Your task to perform on an android device: Show me productivity apps on the Play Store Image 0: 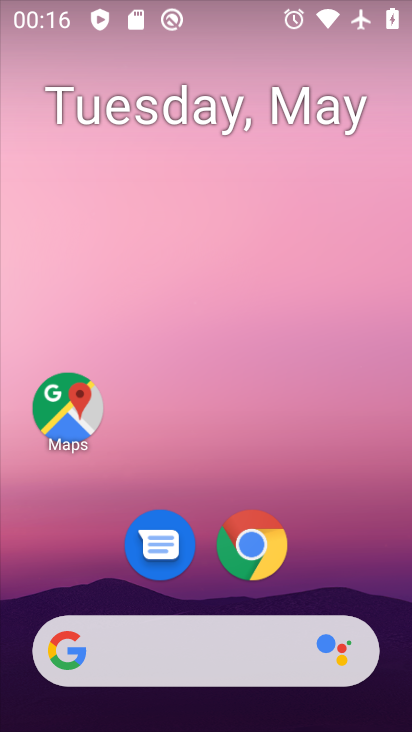
Step 0: drag from (337, 585) to (386, 43)
Your task to perform on an android device: Show me productivity apps on the Play Store Image 1: 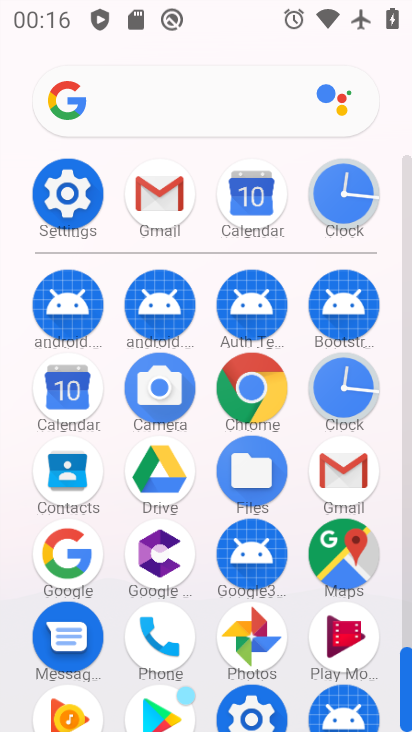
Step 1: drag from (182, 571) to (240, 307)
Your task to perform on an android device: Show me productivity apps on the Play Store Image 2: 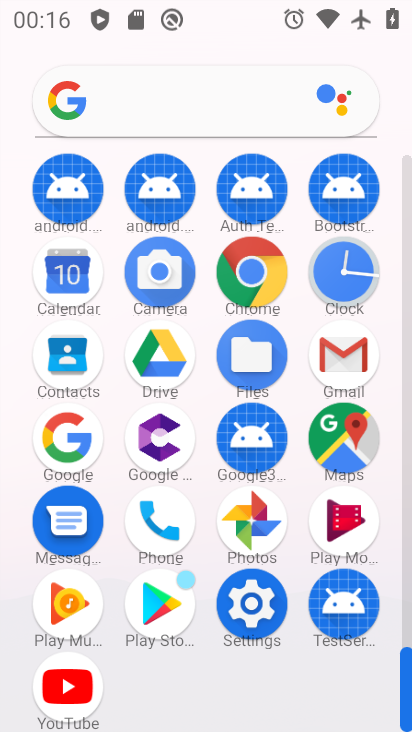
Step 2: click (150, 621)
Your task to perform on an android device: Show me productivity apps on the Play Store Image 3: 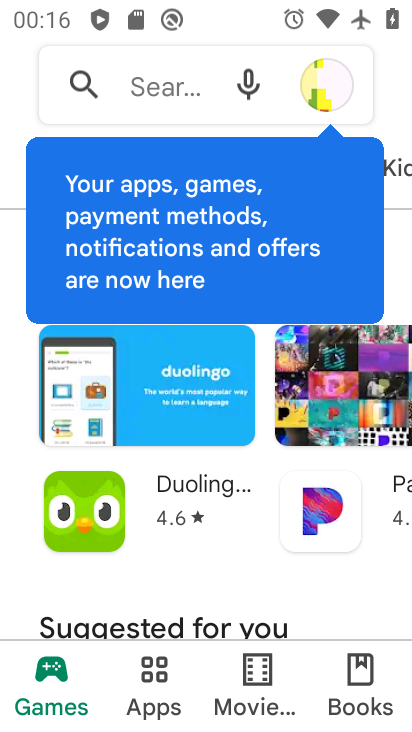
Step 3: click (160, 659)
Your task to perform on an android device: Show me productivity apps on the Play Store Image 4: 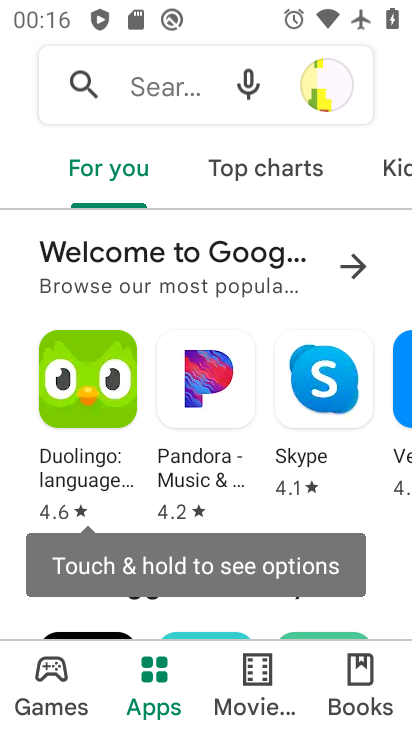
Step 4: drag from (406, 175) to (6, 225)
Your task to perform on an android device: Show me productivity apps on the Play Store Image 5: 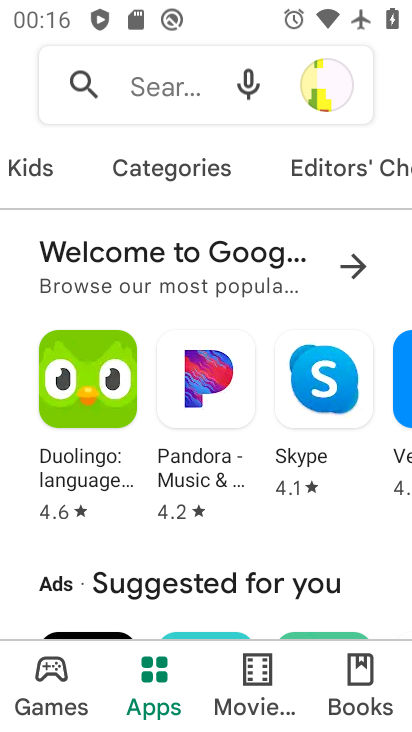
Step 5: click (158, 167)
Your task to perform on an android device: Show me productivity apps on the Play Store Image 6: 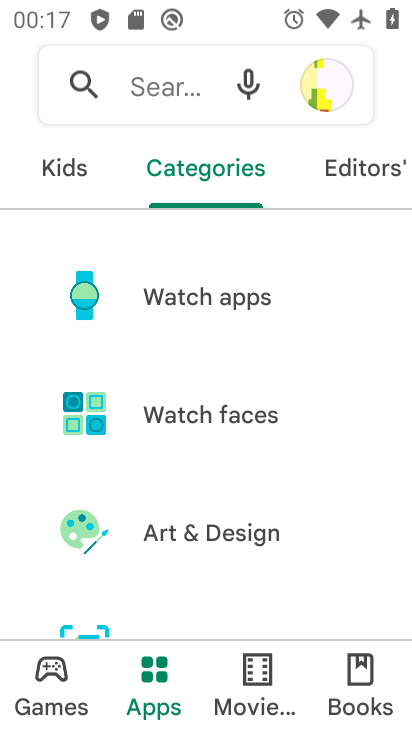
Step 6: drag from (162, 570) to (212, 391)
Your task to perform on an android device: Show me productivity apps on the Play Store Image 7: 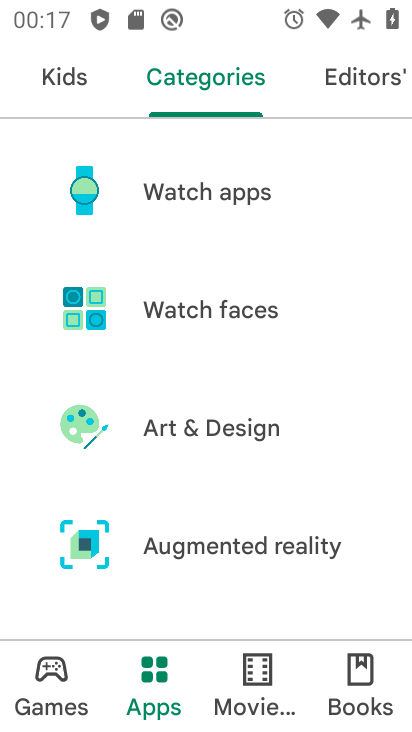
Step 7: drag from (197, 552) to (239, 370)
Your task to perform on an android device: Show me productivity apps on the Play Store Image 8: 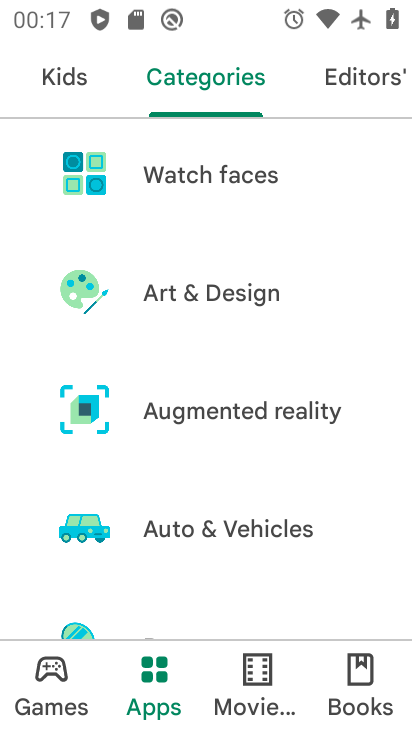
Step 8: drag from (200, 543) to (209, 404)
Your task to perform on an android device: Show me productivity apps on the Play Store Image 9: 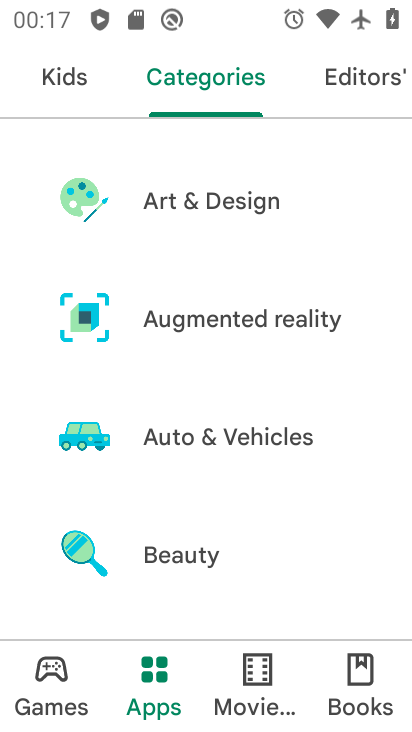
Step 9: drag from (157, 593) to (203, 452)
Your task to perform on an android device: Show me productivity apps on the Play Store Image 10: 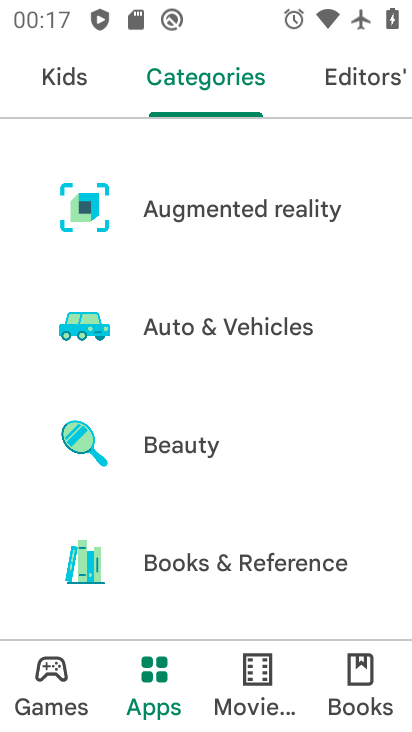
Step 10: drag from (169, 553) to (213, 419)
Your task to perform on an android device: Show me productivity apps on the Play Store Image 11: 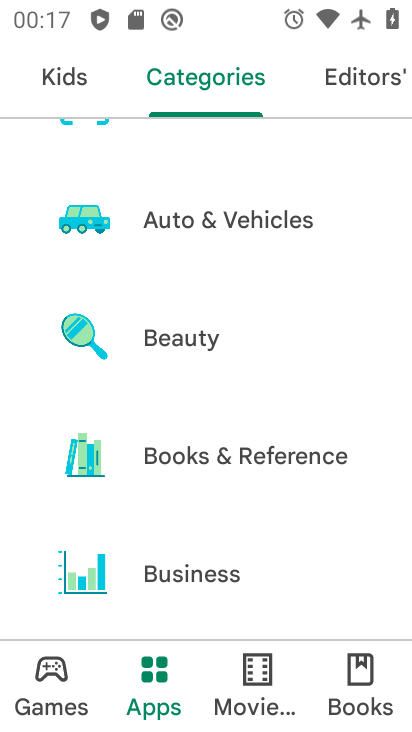
Step 11: drag from (214, 547) to (251, 391)
Your task to perform on an android device: Show me productivity apps on the Play Store Image 12: 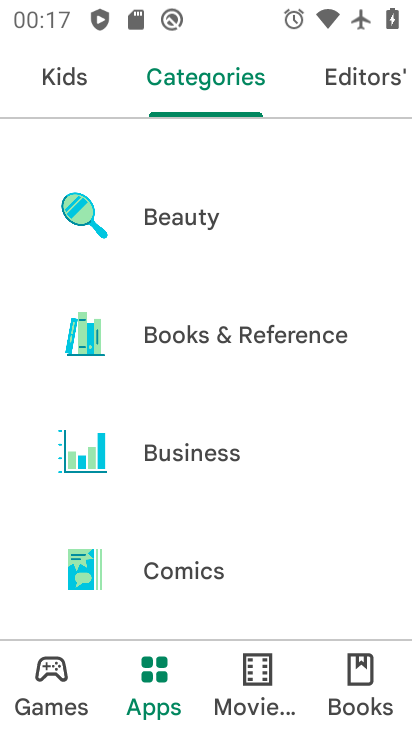
Step 12: drag from (293, 523) to (305, 430)
Your task to perform on an android device: Show me productivity apps on the Play Store Image 13: 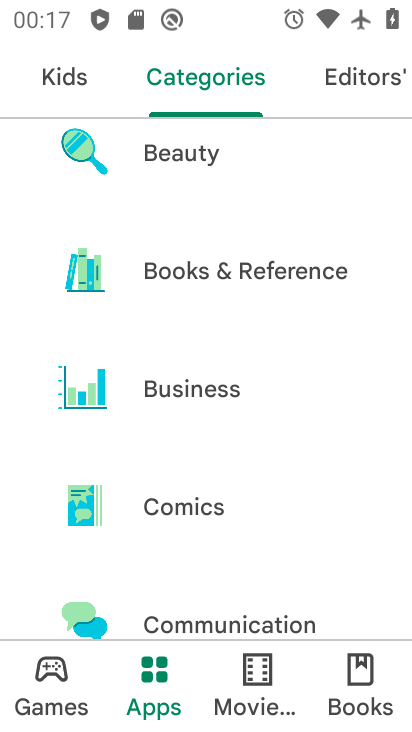
Step 13: drag from (272, 533) to (271, 326)
Your task to perform on an android device: Show me productivity apps on the Play Store Image 14: 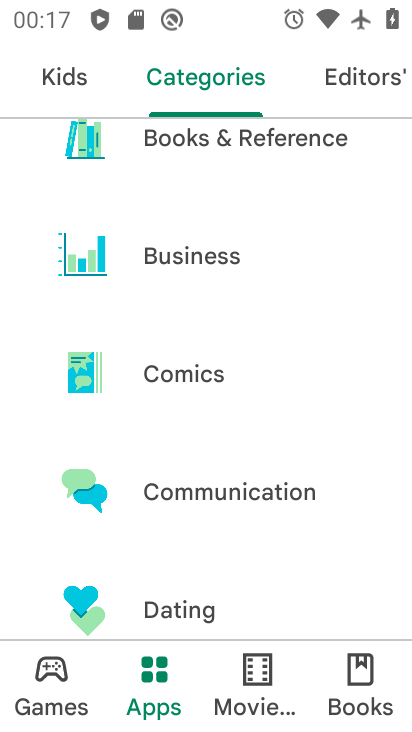
Step 14: drag from (243, 484) to (248, 359)
Your task to perform on an android device: Show me productivity apps on the Play Store Image 15: 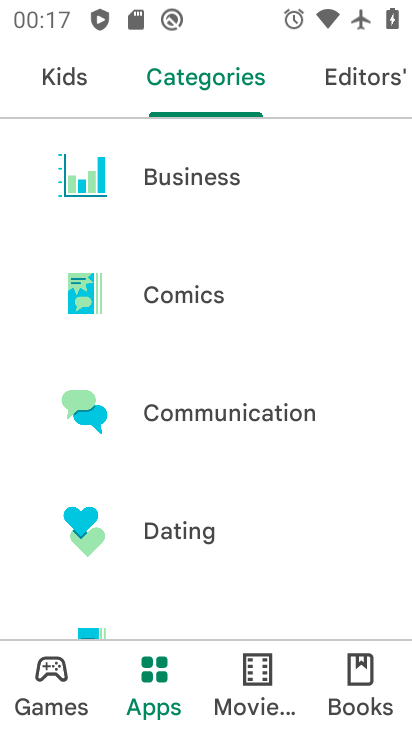
Step 15: drag from (209, 490) to (241, 299)
Your task to perform on an android device: Show me productivity apps on the Play Store Image 16: 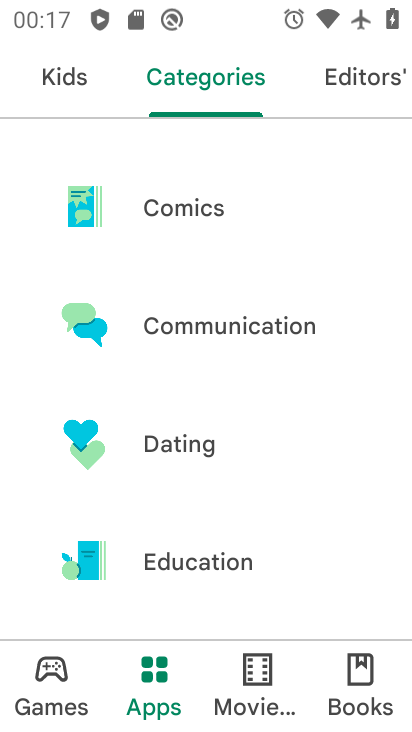
Step 16: drag from (180, 516) to (228, 350)
Your task to perform on an android device: Show me productivity apps on the Play Store Image 17: 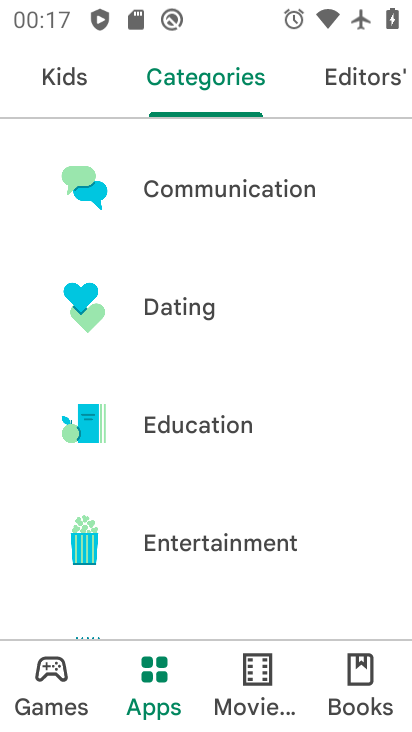
Step 17: drag from (196, 572) to (243, 360)
Your task to perform on an android device: Show me productivity apps on the Play Store Image 18: 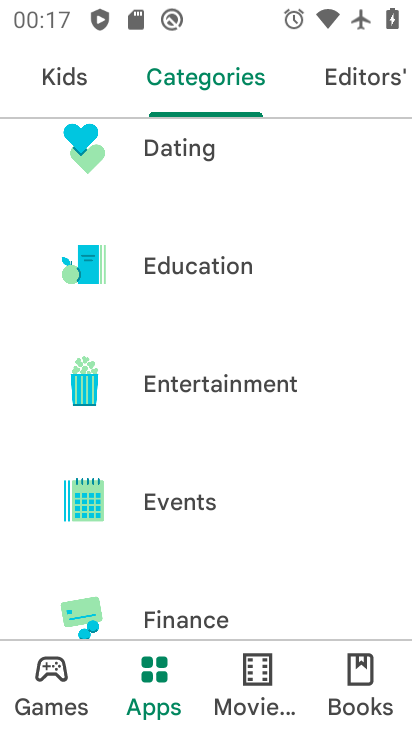
Step 18: drag from (201, 550) to (236, 376)
Your task to perform on an android device: Show me productivity apps on the Play Store Image 19: 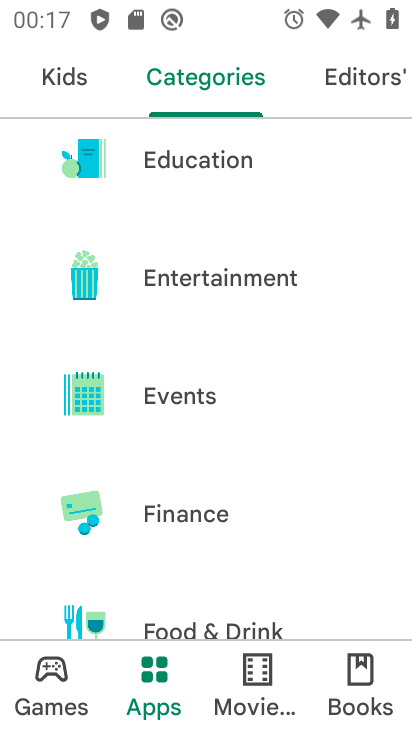
Step 19: drag from (218, 572) to (245, 470)
Your task to perform on an android device: Show me productivity apps on the Play Store Image 20: 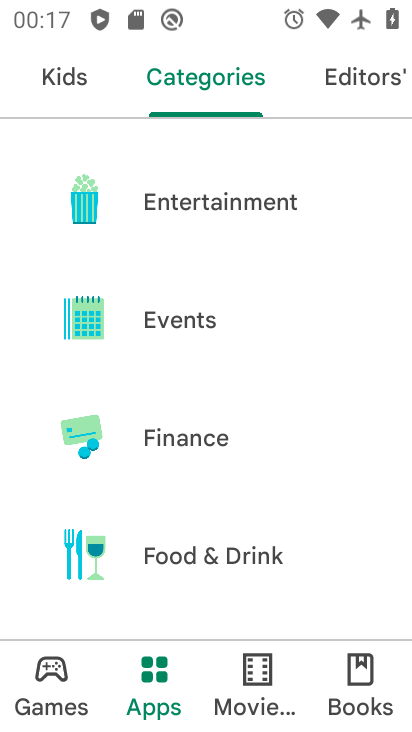
Step 20: drag from (246, 470) to (249, 322)
Your task to perform on an android device: Show me productivity apps on the Play Store Image 21: 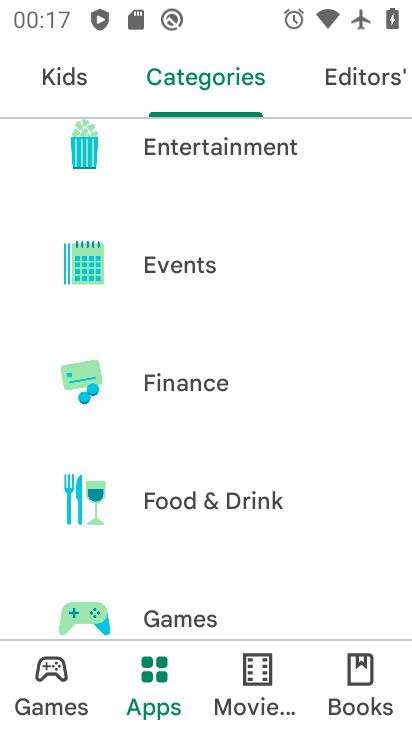
Step 21: drag from (193, 564) to (205, 411)
Your task to perform on an android device: Show me productivity apps on the Play Store Image 22: 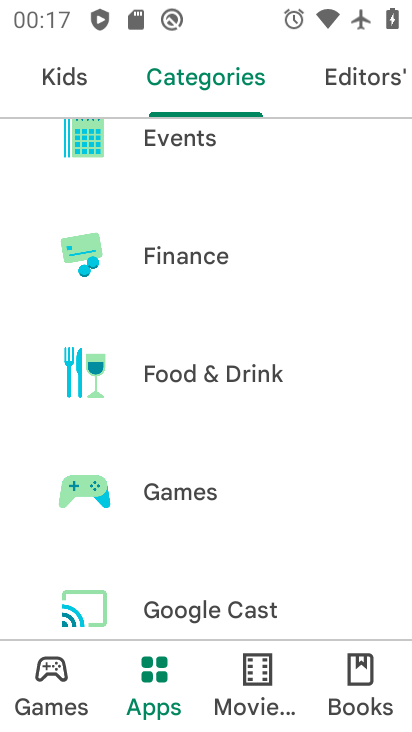
Step 22: drag from (162, 540) to (201, 435)
Your task to perform on an android device: Show me productivity apps on the Play Store Image 23: 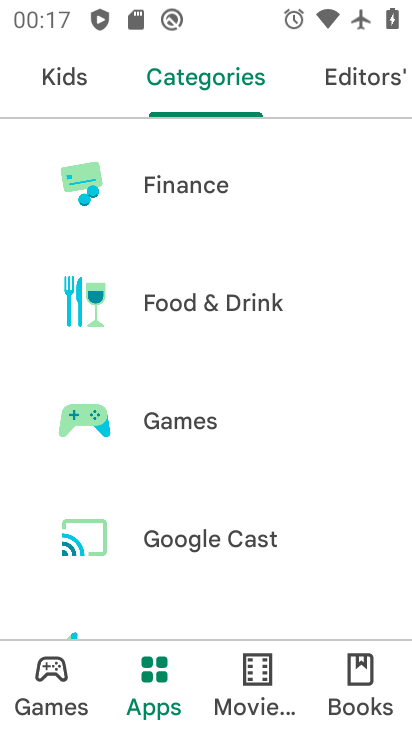
Step 23: drag from (177, 538) to (208, 388)
Your task to perform on an android device: Show me productivity apps on the Play Store Image 24: 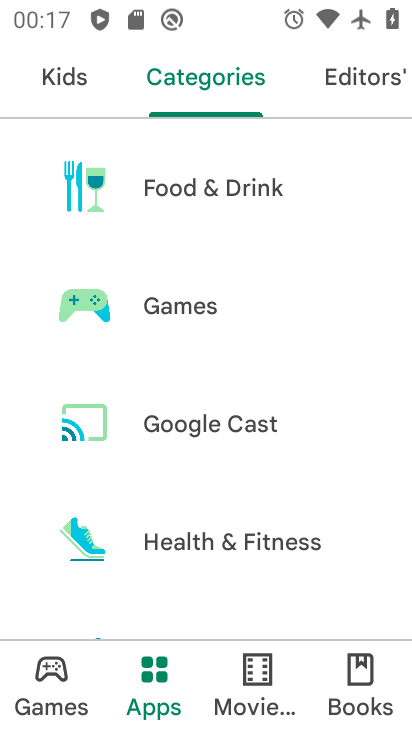
Step 24: drag from (147, 529) to (184, 384)
Your task to perform on an android device: Show me productivity apps on the Play Store Image 25: 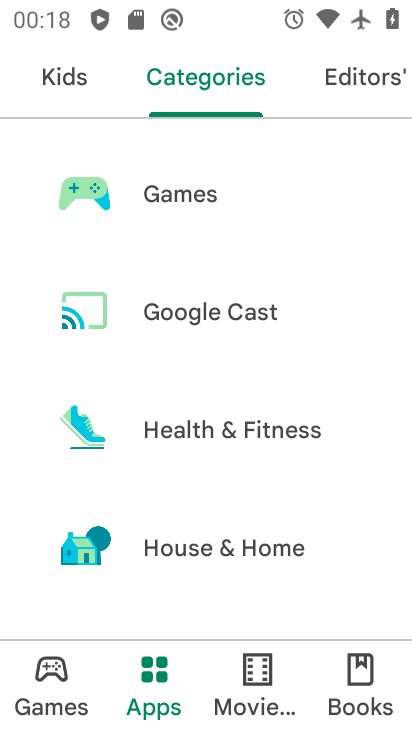
Step 25: drag from (165, 502) to (198, 363)
Your task to perform on an android device: Show me productivity apps on the Play Store Image 26: 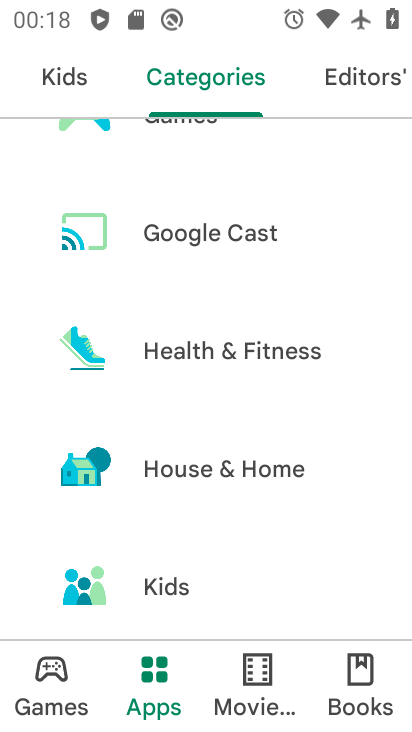
Step 26: drag from (160, 561) to (163, 426)
Your task to perform on an android device: Show me productivity apps on the Play Store Image 27: 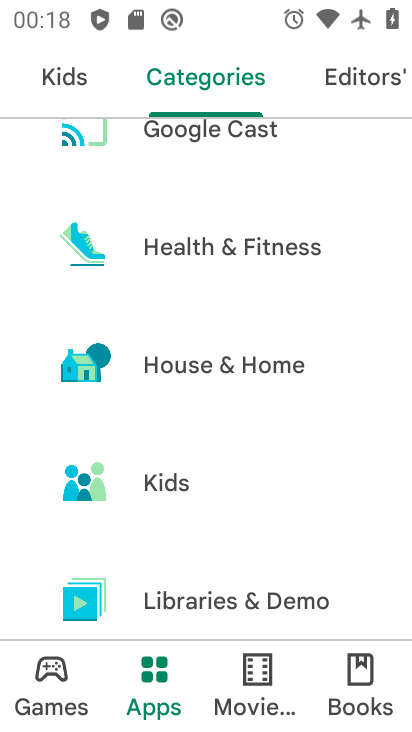
Step 27: drag from (163, 525) to (206, 353)
Your task to perform on an android device: Show me productivity apps on the Play Store Image 28: 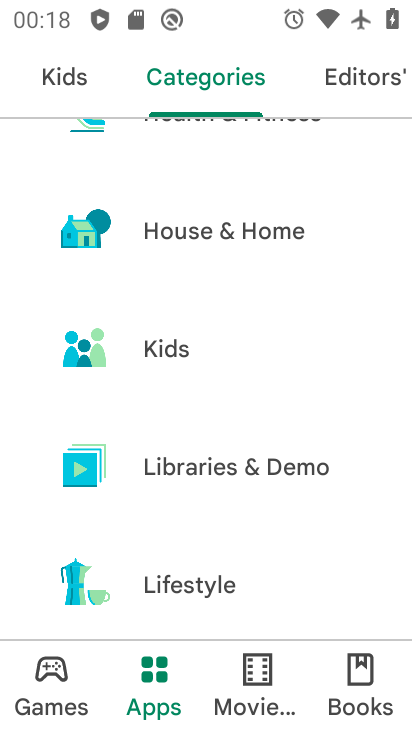
Step 28: drag from (160, 568) to (202, 443)
Your task to perform on an android device: Show me productivity apps on the Play Store Image 29: 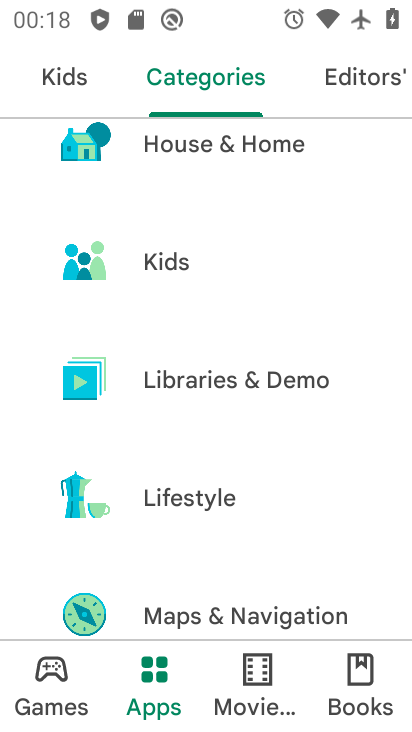
Step 29: drag from (197, 580) to (223, 458)
Your task to perform on an android device: Show me productivity apps on the Play Store Image 30: 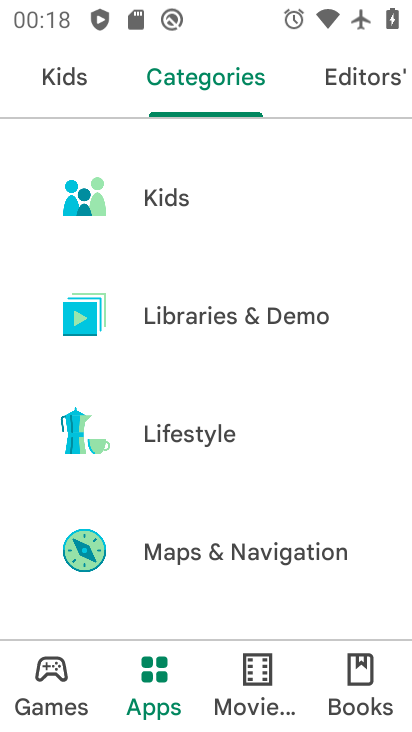
Step 30: drag from (171, 571) to (176, 464)
Your task to perform on an android device: Show me productivity apps on the Play Store Image 31: 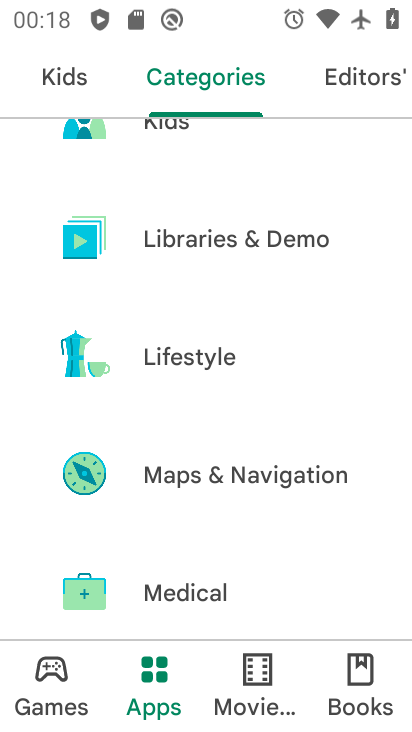
Step 31: drag from (163, 583) to (180, 480)
Your task to perform on an android device: Show me productivity apps on the Play Store Image 32: 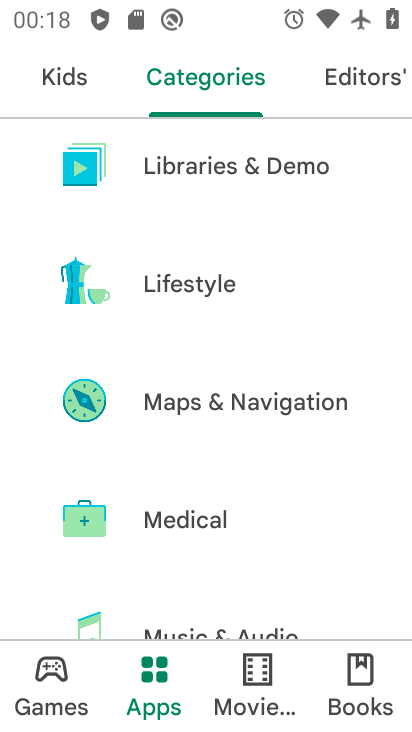
Step 32: drag from (151, 576) to (162, 461)
Your task to perform on an android device: Show me productivity apps on the Play Store Image 33: 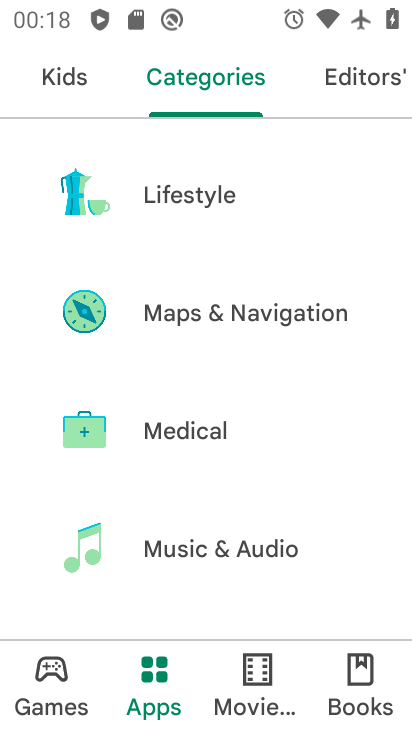
Step 33: drag from (140, 578) to (163, 486)
Your task to perform on an android device: Show me productivity apps on the Play Store Image 34: 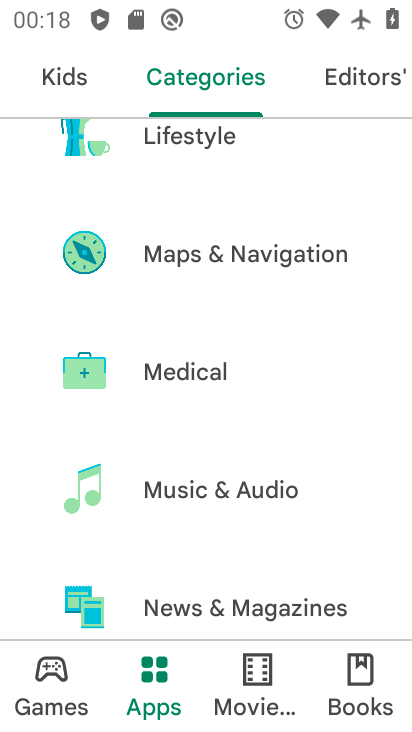
Step 34: drag from (170, 578) to (178, 490)
Your task to perform on an android device: Show me productivity apps on the Play Store Image 35: 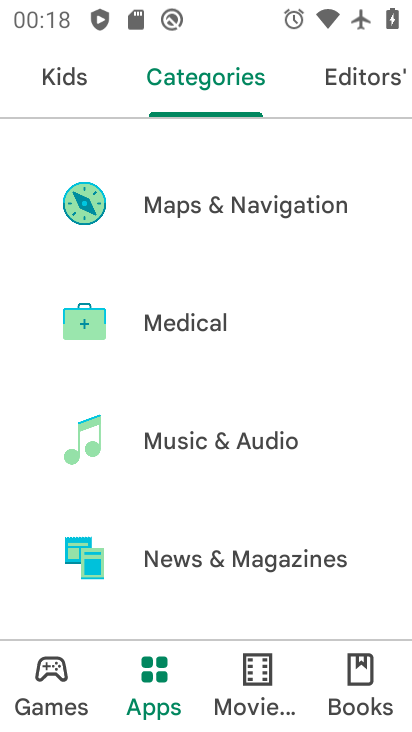
Step 35: drag from (170, 589) to (174, 502)
Your task to perform on an android device: Show me productivity apps on the Play Store Image 36: 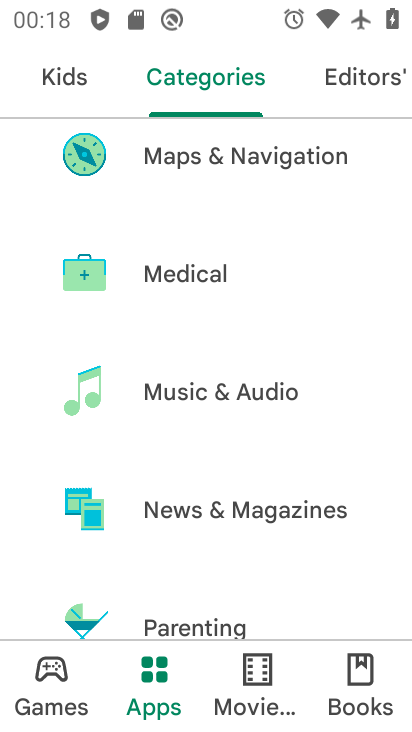
Step 36: drag from (157, 600) to (164, 429)
Your task to perform on an android device: Show me productivity apps on the Play Store Image 37: 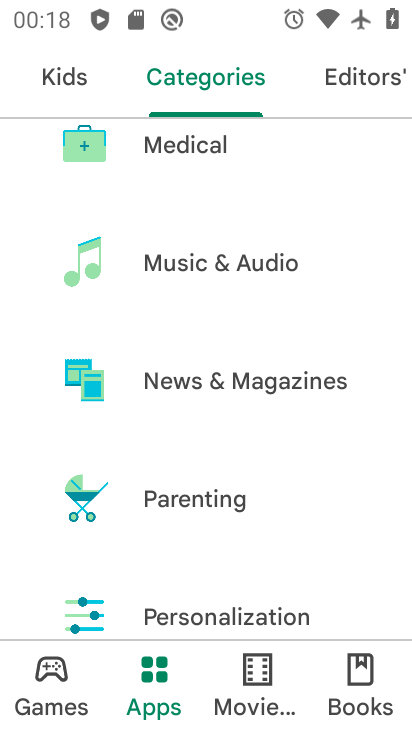
Step 37: drag from (129, 565) to (131, 435)
Your task to perform on an android device: Show me productivity apps on the Play Store Image 38: 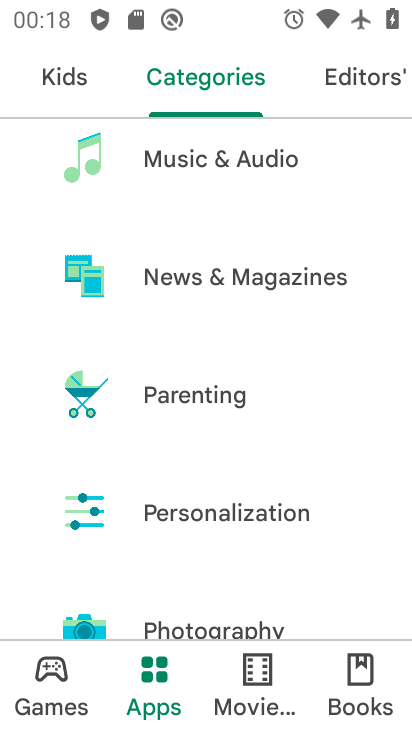
Step 38: drag from (112, 573) to (122, 448)
Your task to perform on an android device: Show me productivity apps on the Play Store Image 39: 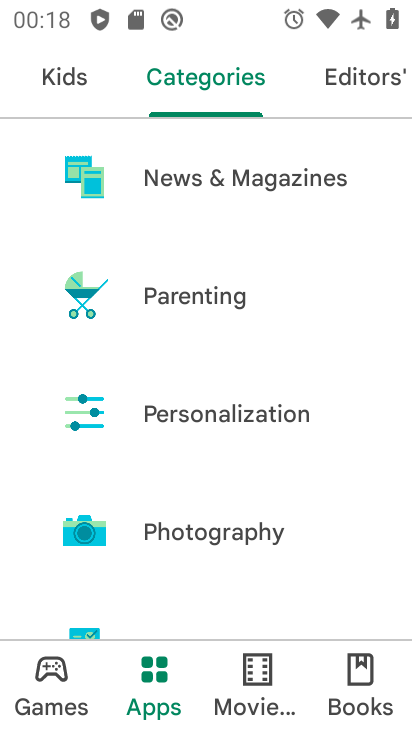
Step 39: drag from (121, 592) to (148, 486)
Your task to perform on an android device: Show me productivity apps on the Play Store Image 40: 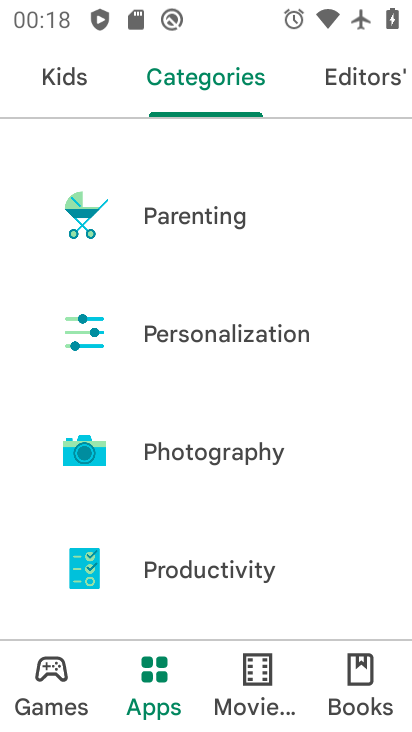
Step 40: click (157, 580)
Your task to perform on an android device: Show me productivity apps on the Play Store Image 41: 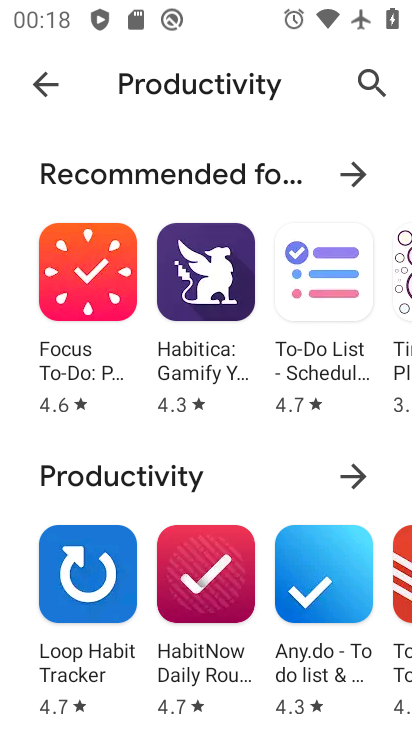
Step 41: task complete